Your task to perform on an android device: Go to Reddit.com Image 0: 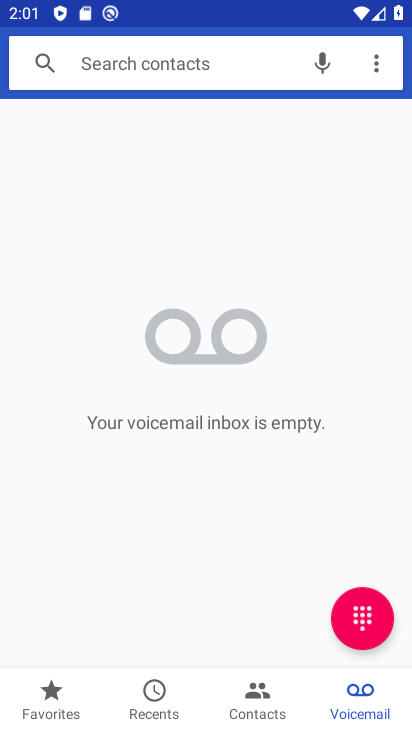
Step 0: press home button
Your task to perform on an android device: Go to Reddit.com Image 1: 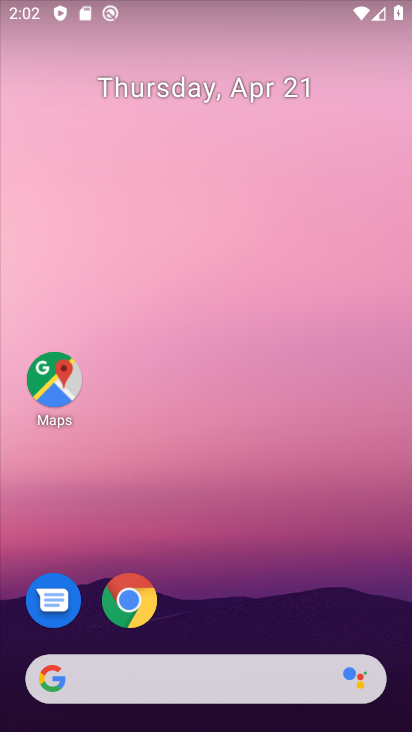
Step 1: click (128, 593)
Your task to perform on an android device: Go to Reddit.com Image 2: 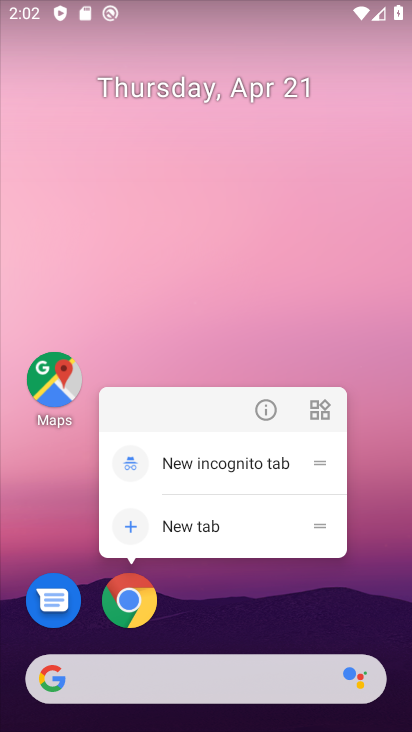
Step 2: click (138, 604)
Your task to perform on an android device: Go to Reddit.com Image 3: 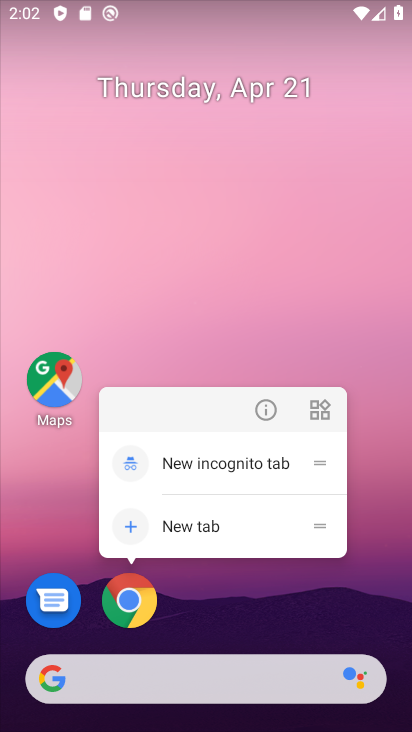
Step 3: click (122, 604)
Your task to perform on an android device: Go to Reddit.com Image 4: 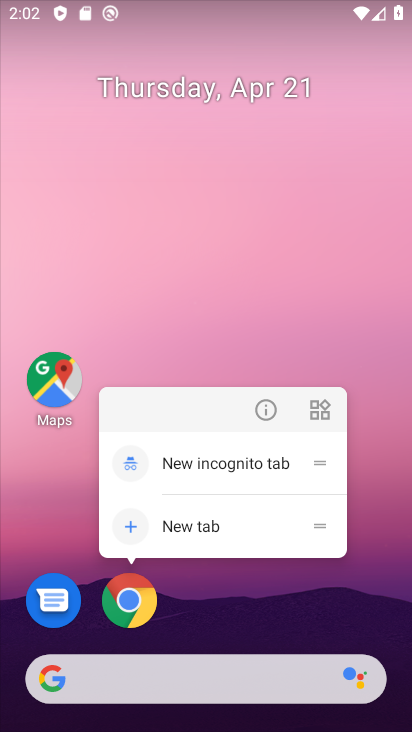
Step 4: click (125, 616)
Your task to perform on an android device: Go to Reddit.com Image 5: 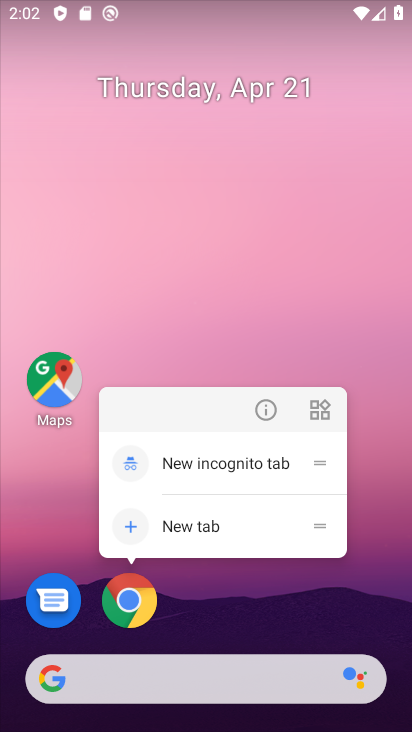
Step 5: click (228, 605)
Your task to perform on an android device: Go to Reddit.com Image 6: 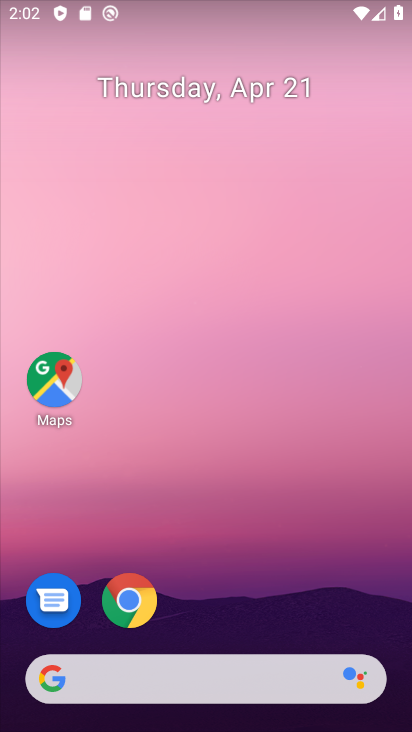
Step 6: click (134, 596)
Your task to perform on an android device: Go to Reddit.com Image 7: 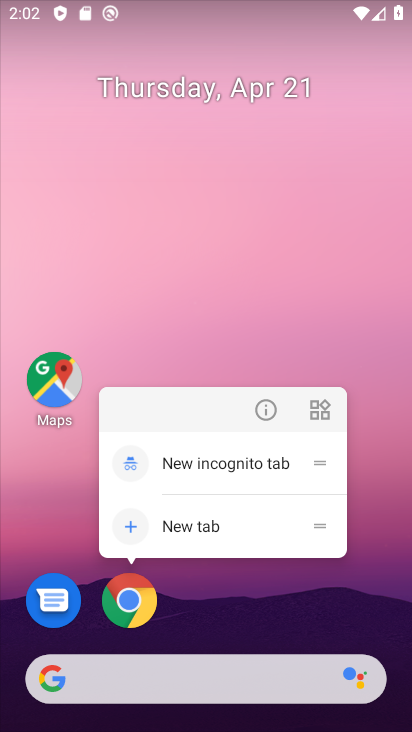
Step 7: click (136, 583)
Your task to perform on an android device: Go to Reddit.com Image 8: 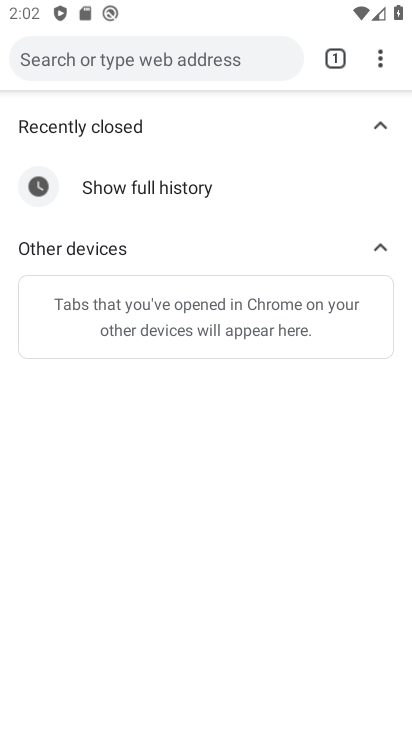
Step 8: click (184, 52)
Your task to perform on an android device: Go to Reddit.com Image 9: 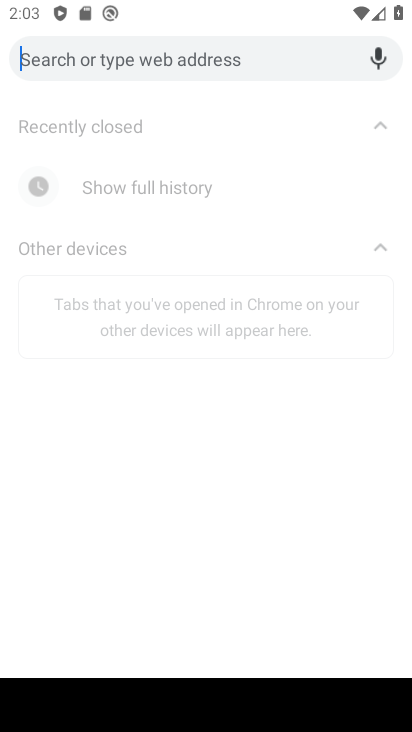
Step 9: type "reddit,\.com"
Your task to perform on an android device: Go to Reddit.com Image 10: 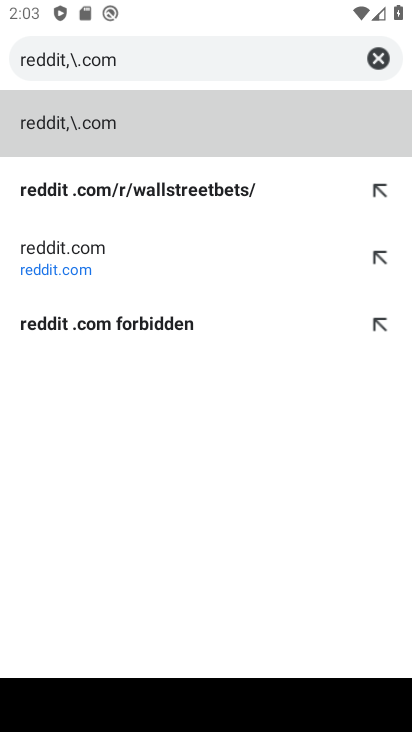
Step 10: click (44, 245)
Your task to perform on an android device: Go to Reddit.com Image 11: 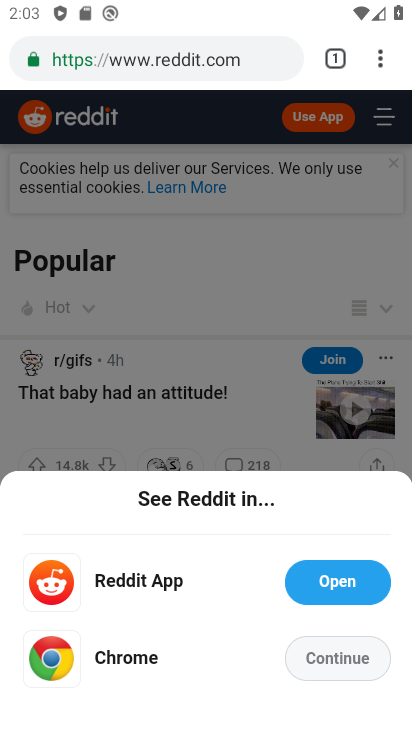
Step 11: task complete